Your task to perform on an android device: uninstall "ColorNote Notepad Notes" Image 0: 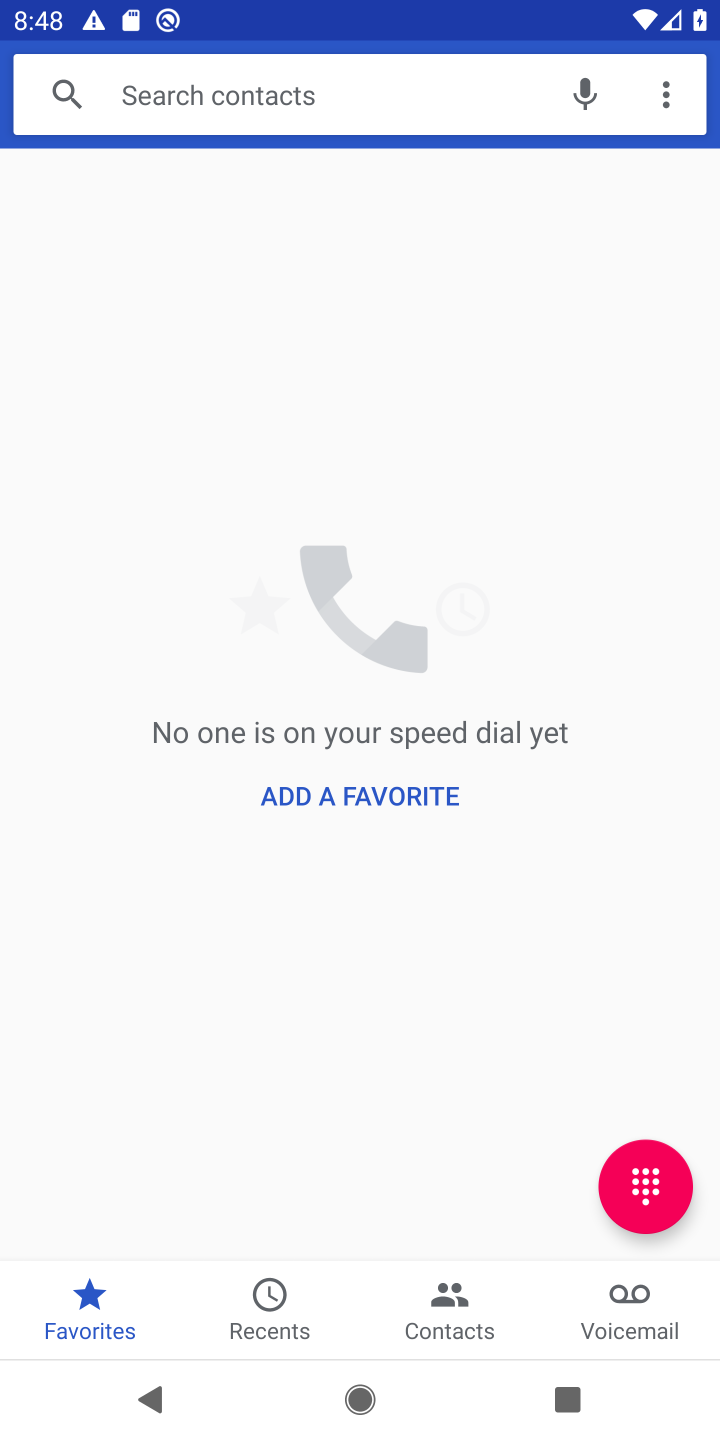
Step 0: press home button
Your task to perform on an android device: uninstall "ColorNote Notepad Notes" Image 1: 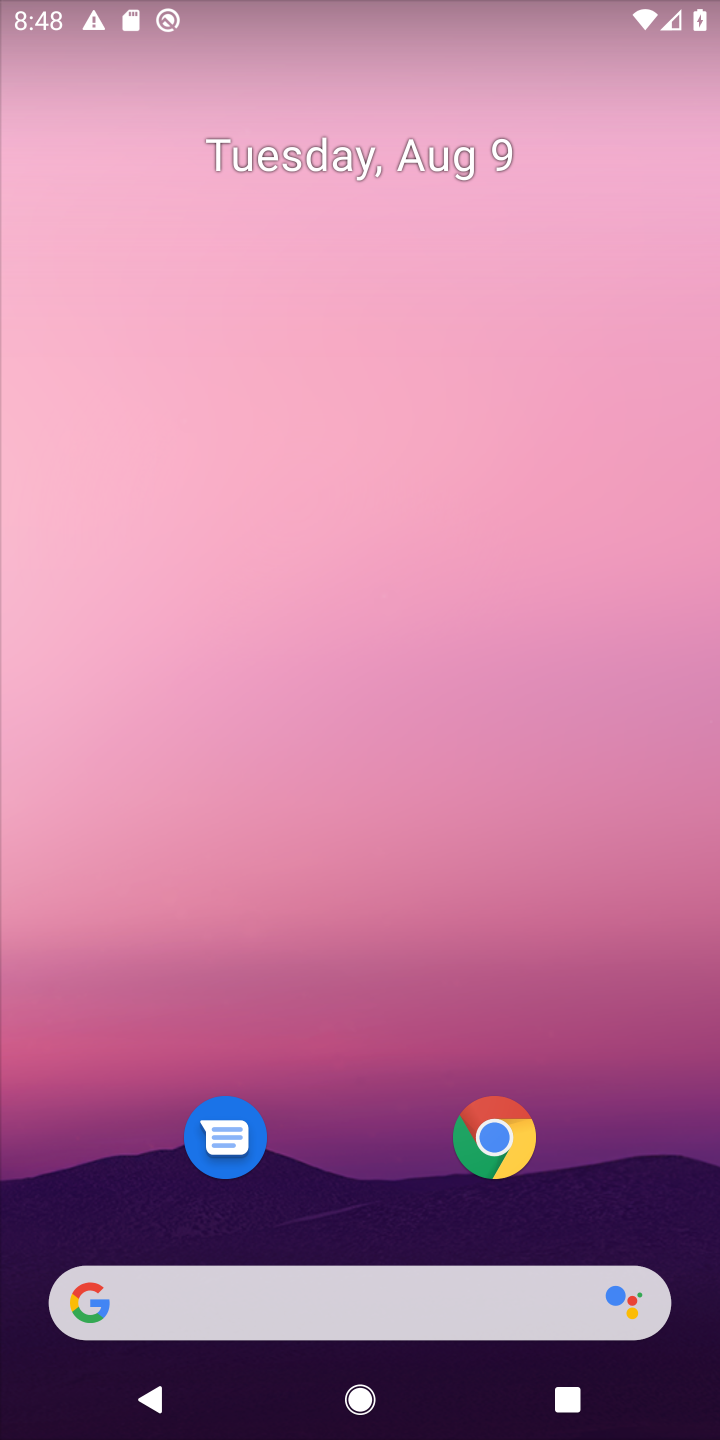
Step 1: drag from (384, 1152) to (493, 153)
Your task to perform on an android device: uninstall "ColorNote Notepad Notes" Image 2: 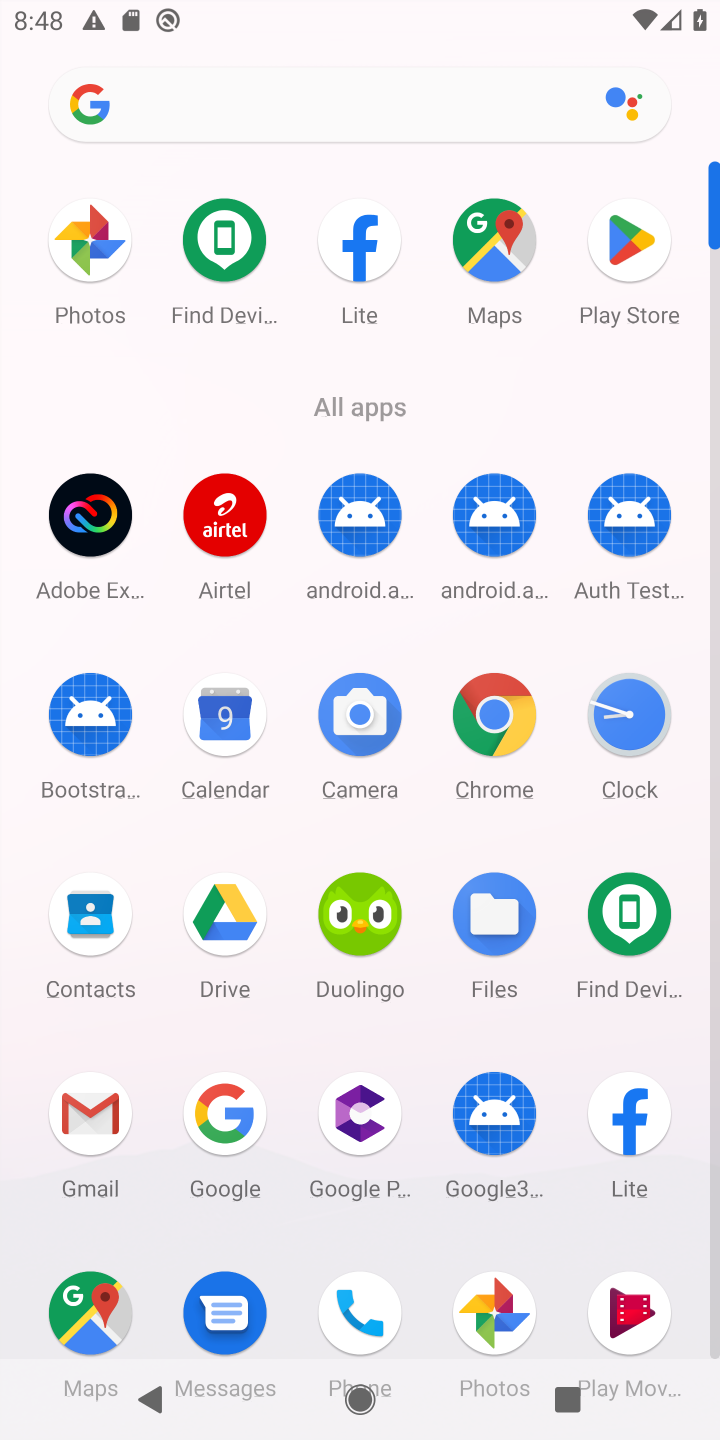
Step 2: click (632, 259)
Your task to perform on an android device: uninstall "ColorNote Notepad Notes" Image 3: 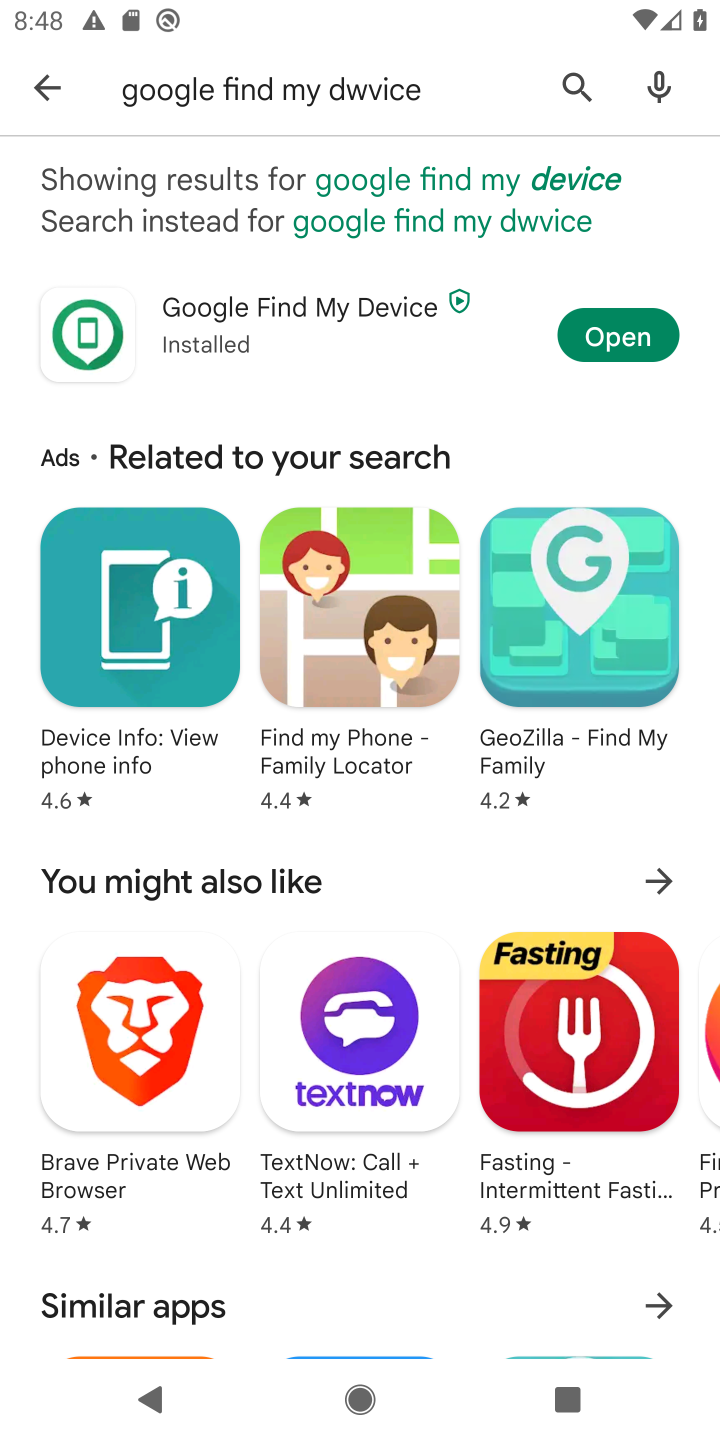
Step 3: click (572, 89)
Your task to perform on an android device: uninstall "ColorNote Notepad Notes" Image 4: 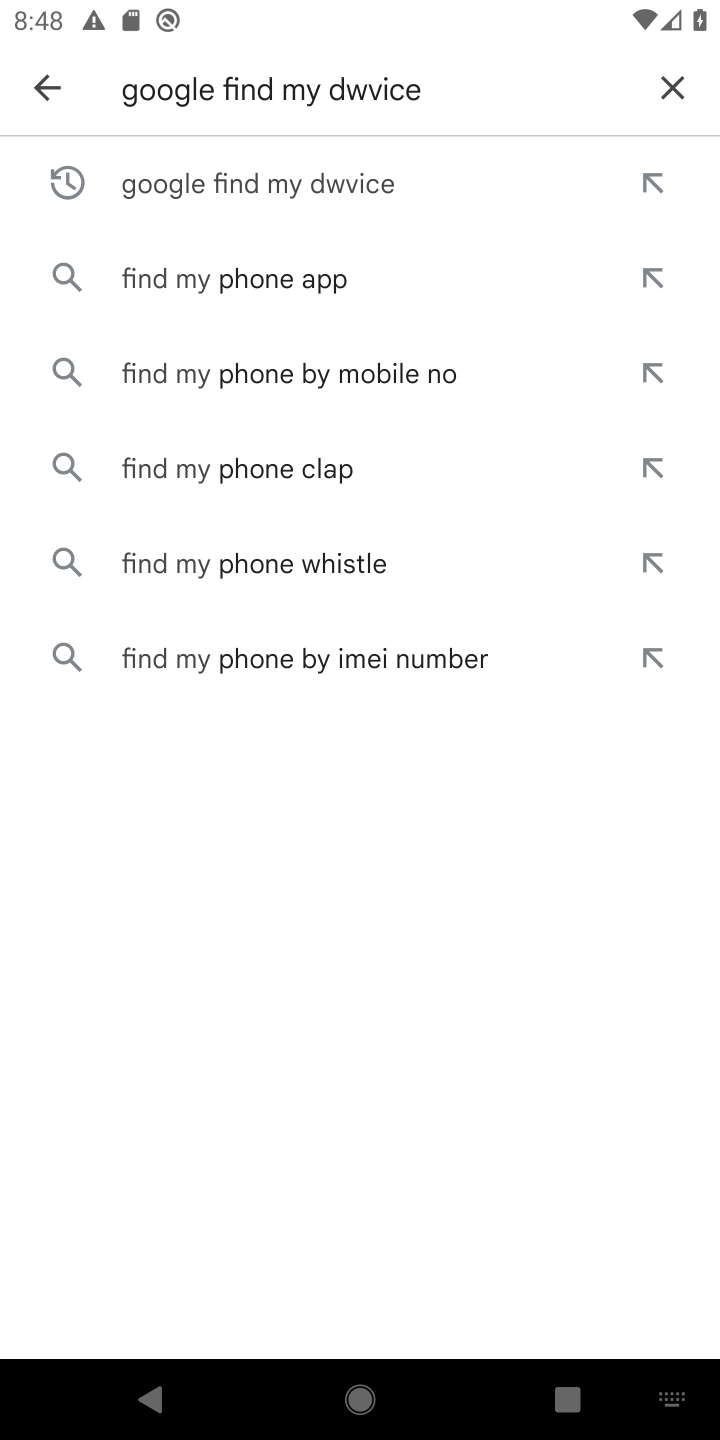
Step 4: click (663, 84)
Your task to perform on an android device: uninstall "ColorNote Notepad Notes" Image 5: 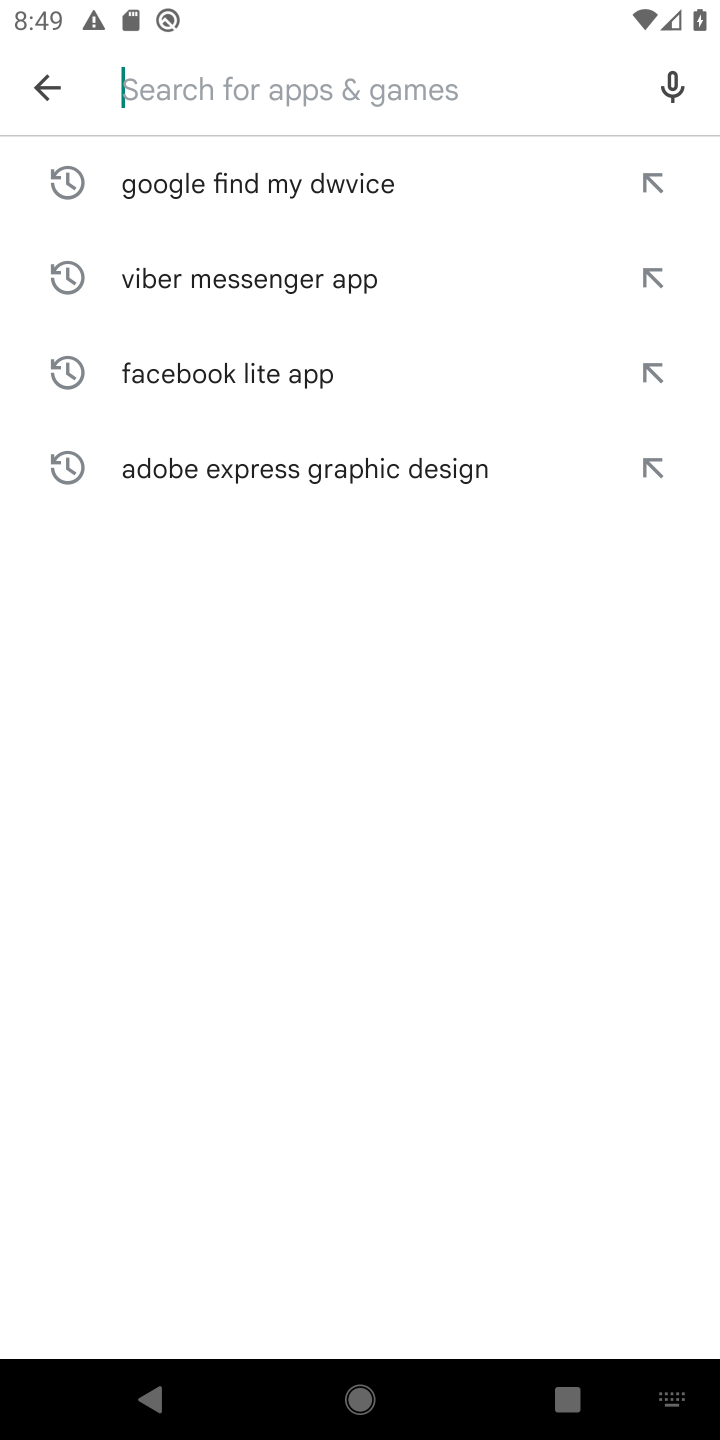
Step 5: type "ColorNote Notepad Notes"
Your task to perform on an android device: uninstall "ColorNote Notepad Notes" Image 6: 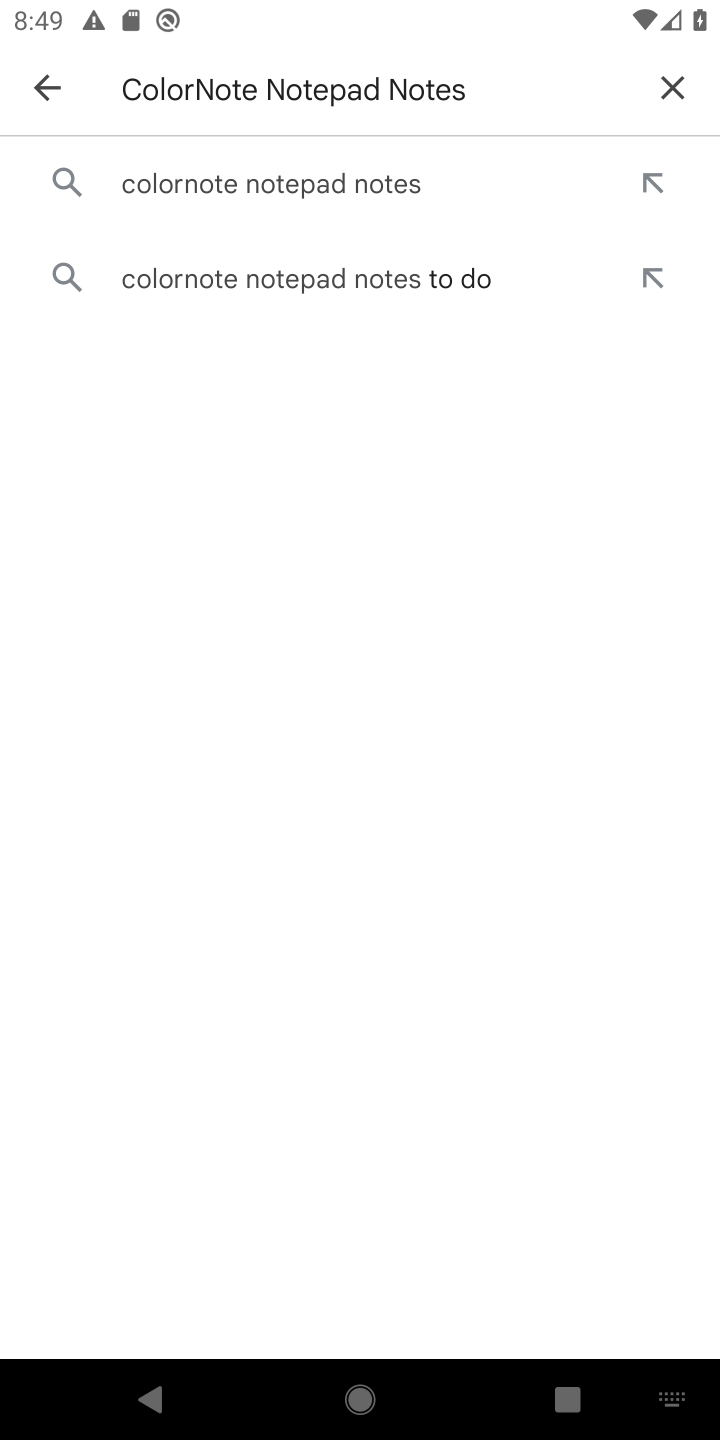
Step 6: click (360, 174)
Your task to perform on an android device: uninstall "ColorNote Notepad Notes" Image 7: 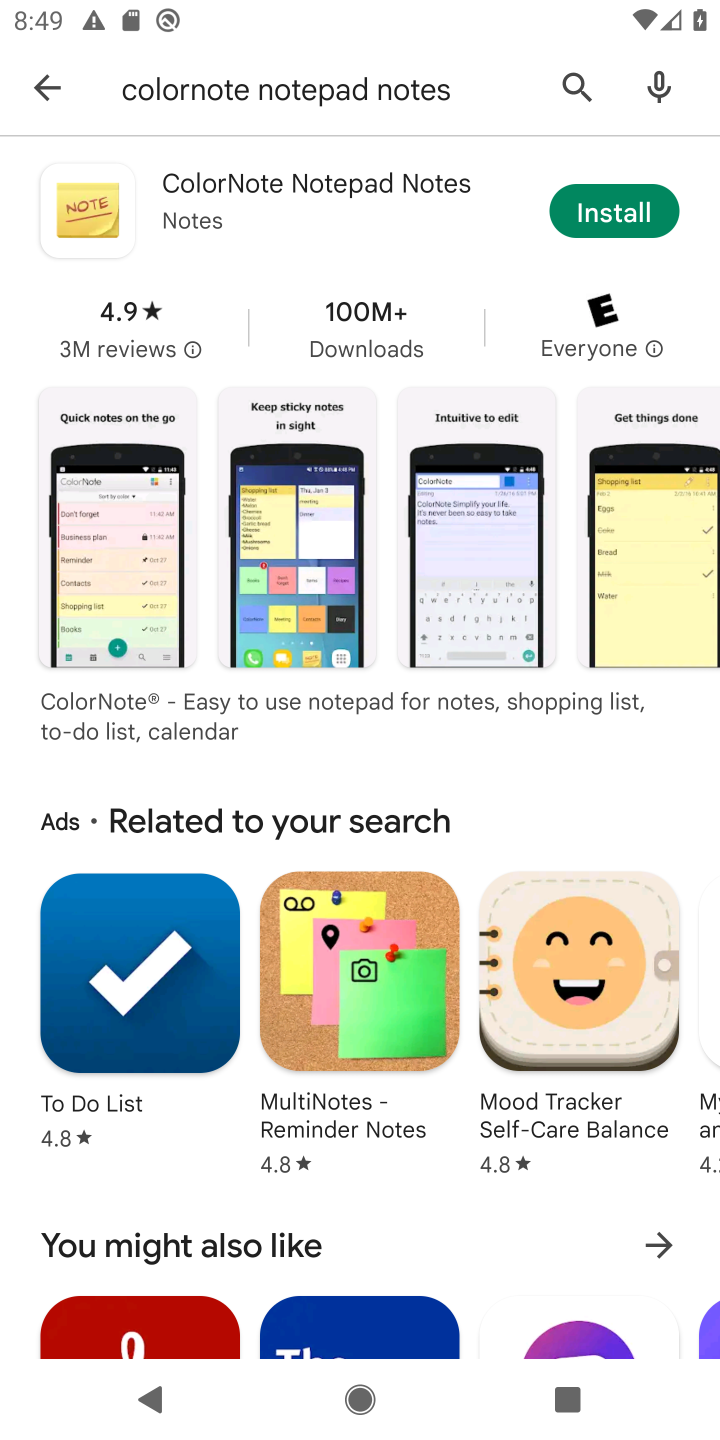
Step 7: task complete